Your task to perform on an android device: Turn off the flashlight Image 0: 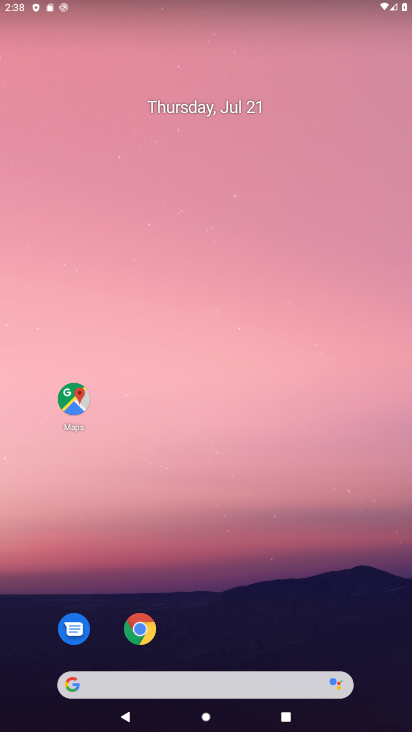
Step 0: drag from (215, 641) to (216, 156)
Your task to perform on an android device: Turn off the flashlight Image 1: 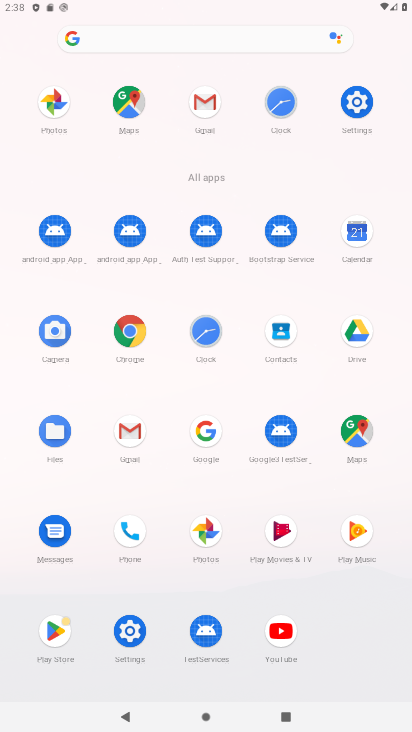
Step 1: click (357, 101)
Your task to perform on an android device: Turn off the flashlight Image 2: 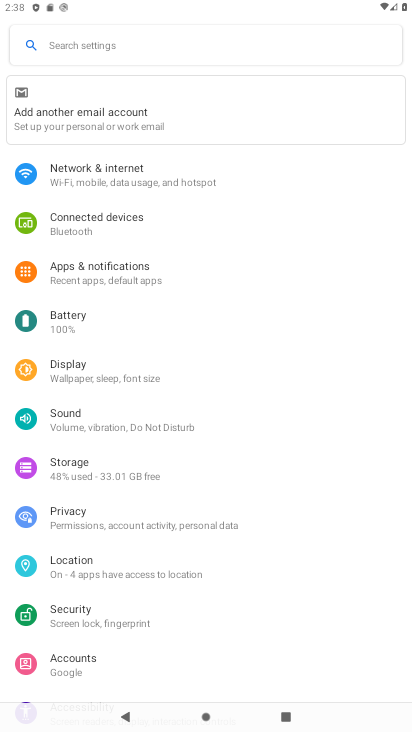
Step 2: click (134, 44)
Your task to perform on an android device: Turn off the flashlight Image 3: 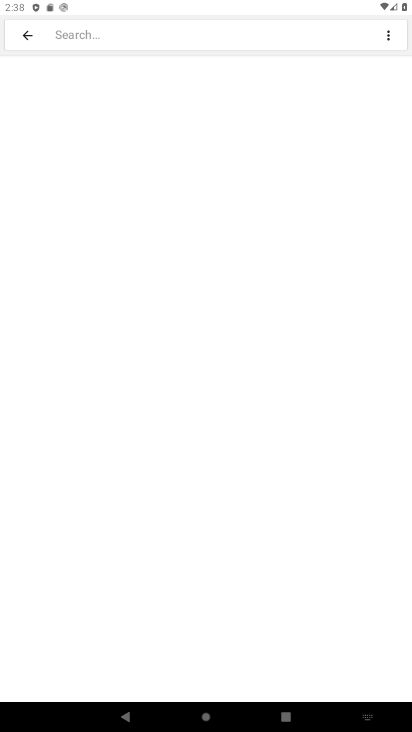
Step 3: type "flashlight"
Your task to perform on an android device: Turn off the flashlight Image 4: 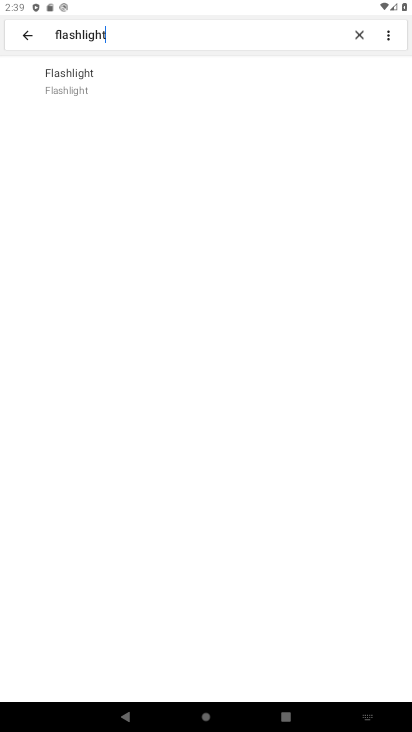
Step 4: task complete